Your task to perform on an android device: turn on location history Image 0: 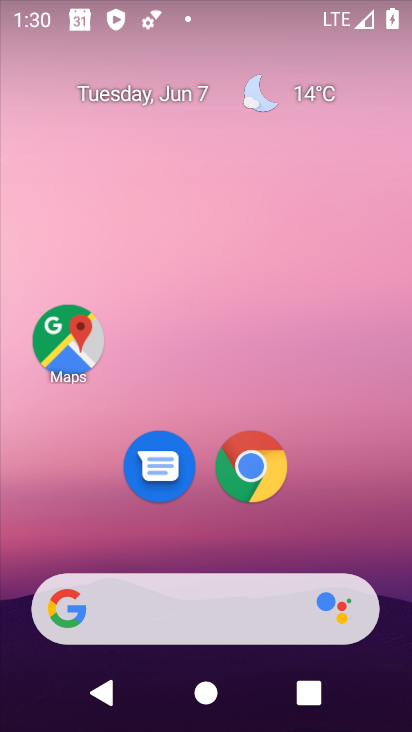
Step 0: drag from (190, 553) to (268, 23)
Your task to perform on an android device: turn on location history Image 1: 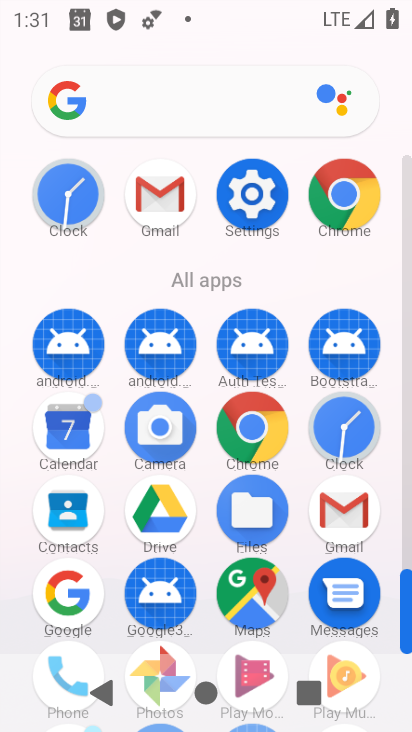
Step 1: click (266, 177)
Your task to perform on an android device: turn on location history Image 2: 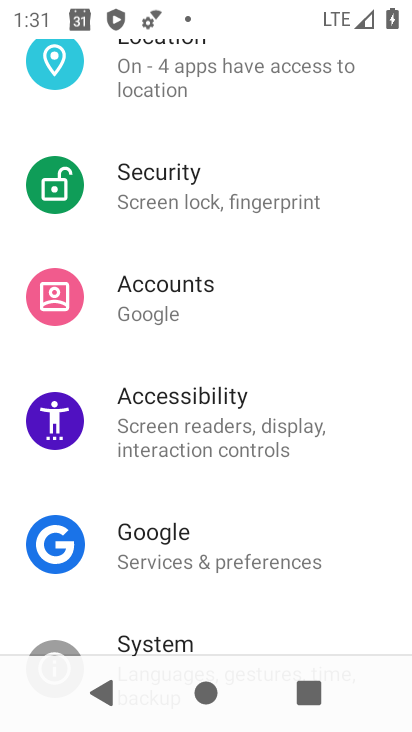
Step 2: click (164, 65)
Your task to perform on an android device: turn on location history Image 3: 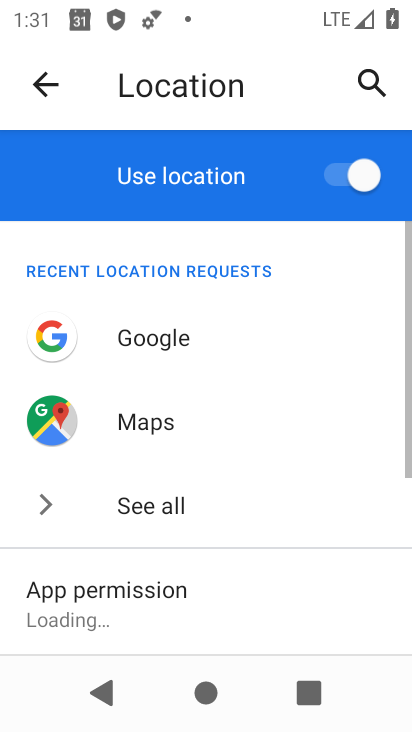
Step 3: drag from (141, 635) to (218, 117)
Your task to perform on an android device: turn on location history Image 4: 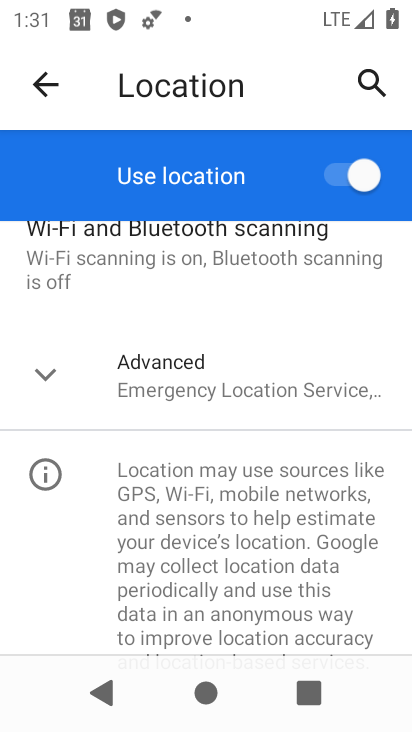
Step 4: click (177, 346)
Your task to perform on an android device: turn on location history Image 5: 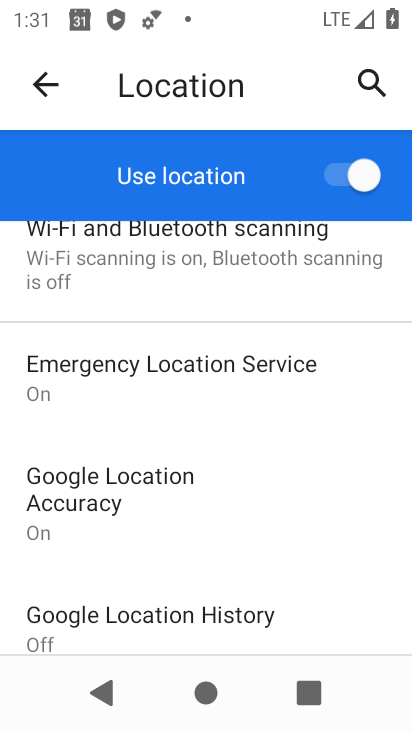
Step 5: click (172, 612)
Your task to perform on an android device: turn on location history Image 6: 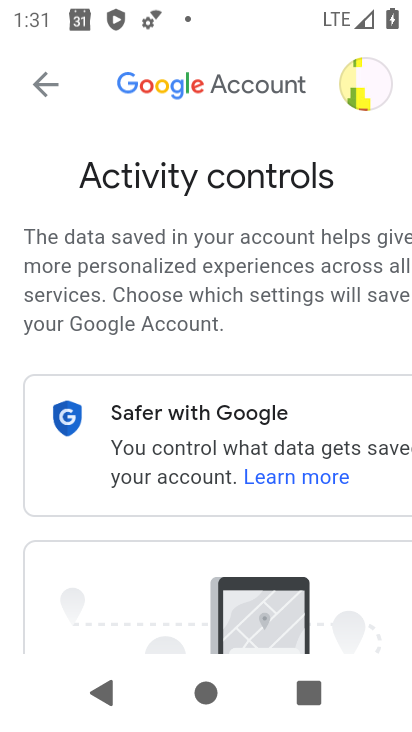
Step 6: drag from (236, 610) to (189, 197)
Your task to perform on an android device: turn on location history Image 7: 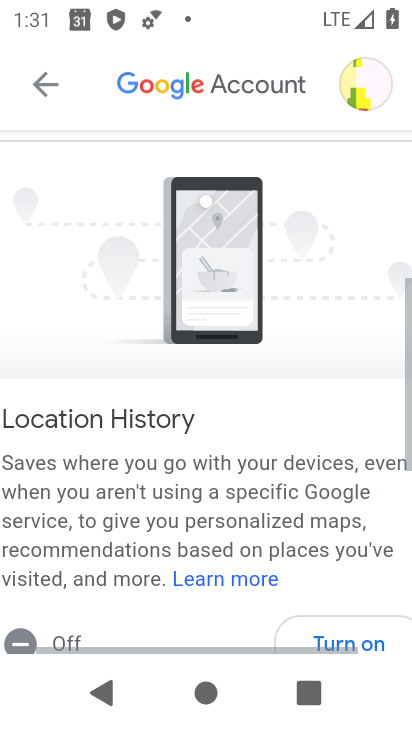
Step 7: drag from (195, 589) to (195, 304)
Your task to perform on an android device: turn on location history Image 8: 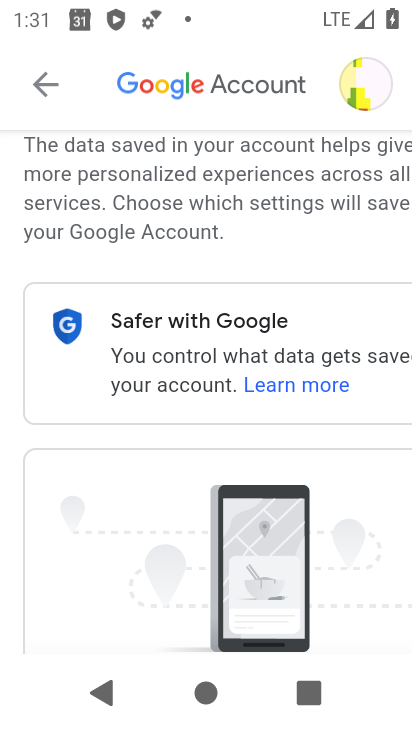
Step 8: click (353, 454)
Your task to perform on an android device: turn on location history Image 9: 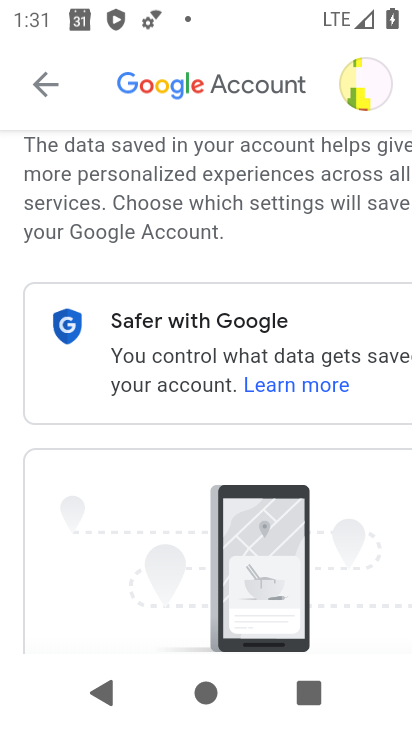
Step 9: drag from (244, 566) to (252, 128)
Your task to perform on an android device: turn on location history Image 10: 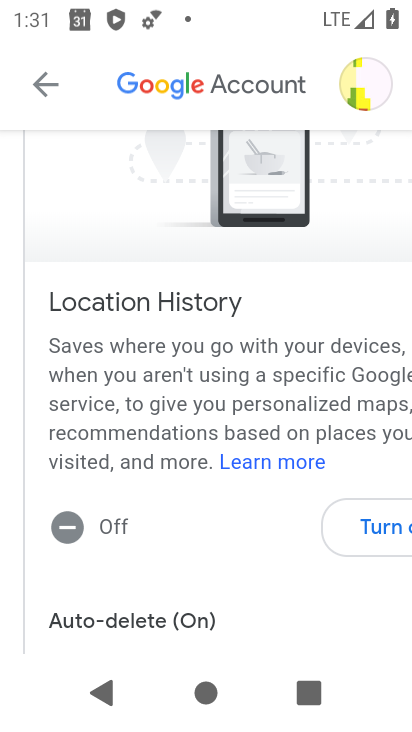
Step 10: click (358, 516)
Your task to perform on an android device: turn on location history Image 11: 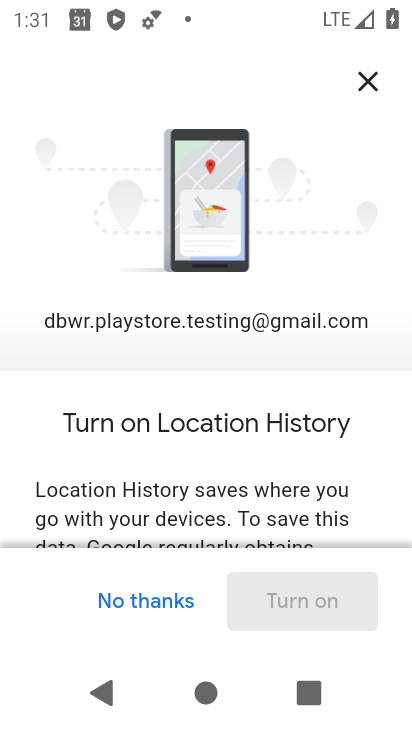
Step 11: drag from (259, 492) to (312, 23)
Your task to perform on an android device: turn on location history Image 12: 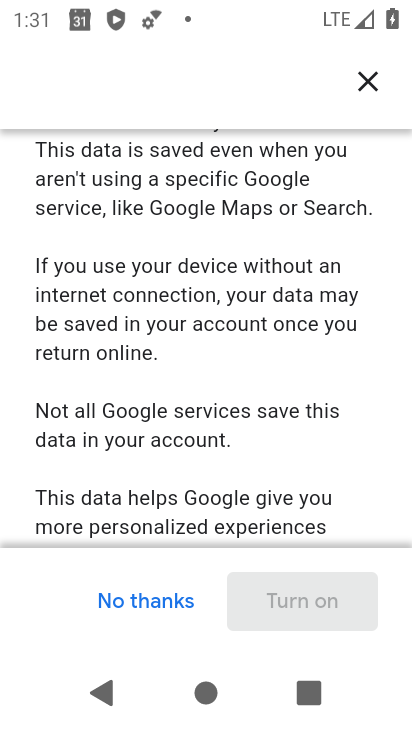
Step 12: drag from (238, 514) to (306, 0)
Your task to perform on an android device: turn on location history Image 13: 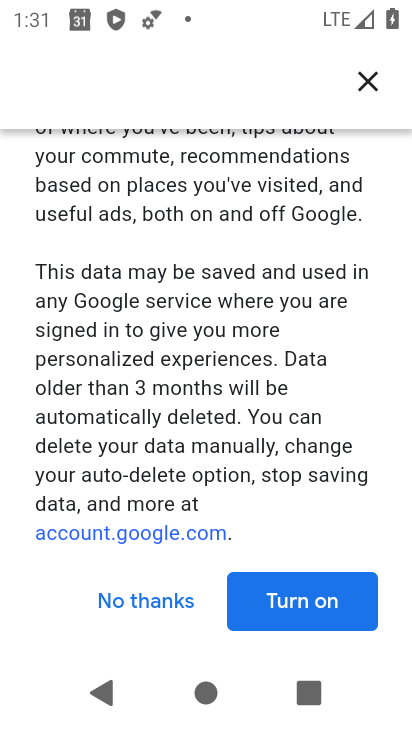
Step 13: drag from (235, 532) to (283, 161)
Your task to perform on an android device: turn on location history Image 14: 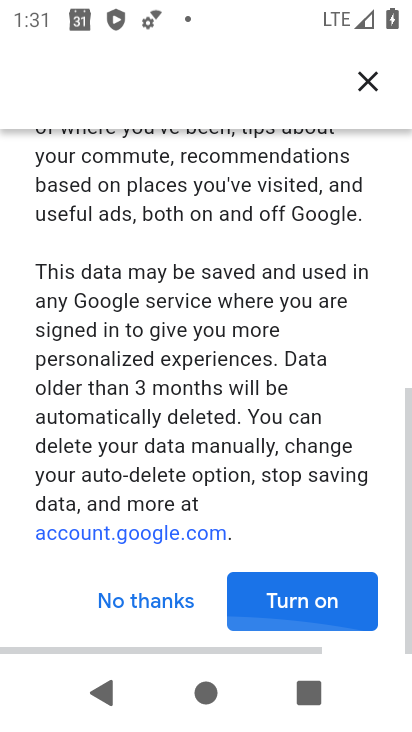
Step 14: click (317, 609)
Your task to perform on an android device: turn on location history Image 15: 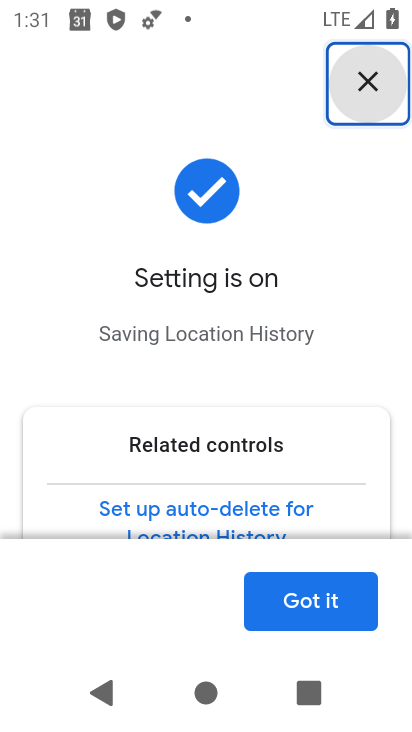
Step 15: click (283, 598)
Your task to perform on an android device: turn on location history Image 16: 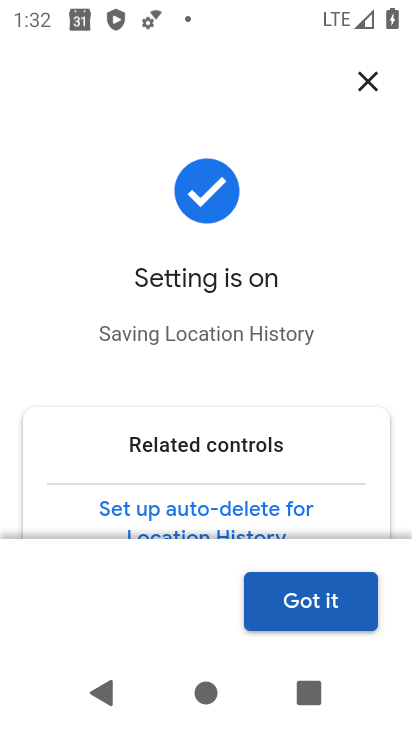
Step 16: drag from (201, 500) to (235, 29)
Your task to perform on an android device: turn on location history Image 17: 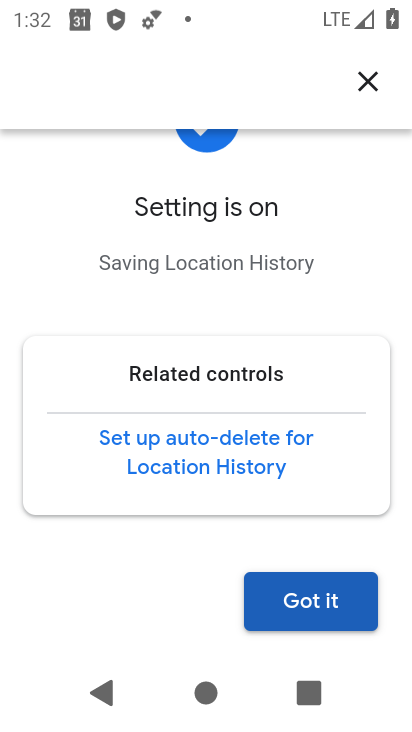
Step 17: click (325, 597)
Your task to perform on an android device: turn on location history Image 18: 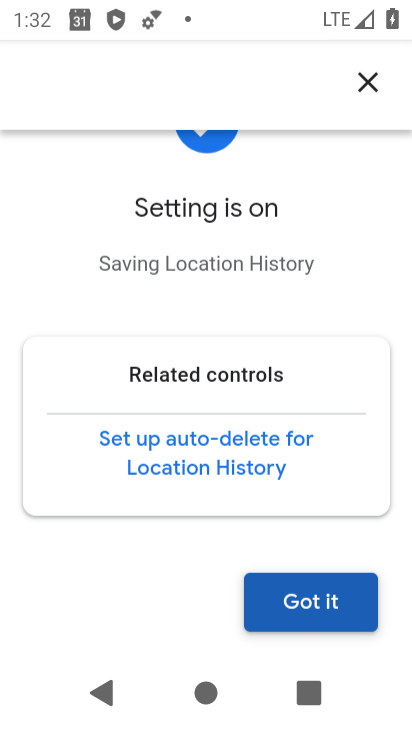
Step 18: task complete